Your task to perform on an android device: turn vacation reply on in the gmail app Image 0: 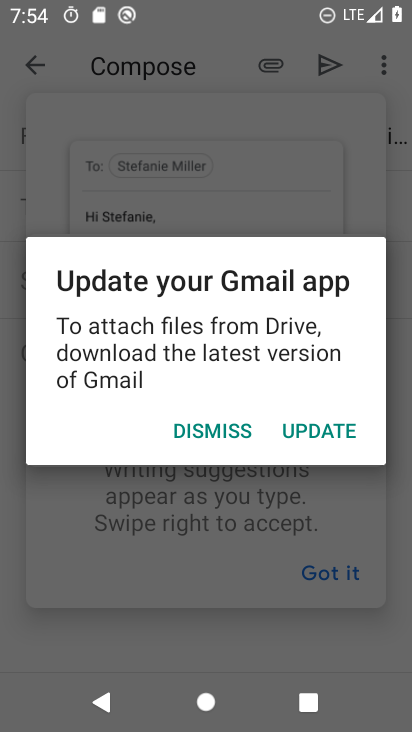
Step 0: press home button
Your task to perform on an android device: turn vacation reply on in the gmail app Image 1: 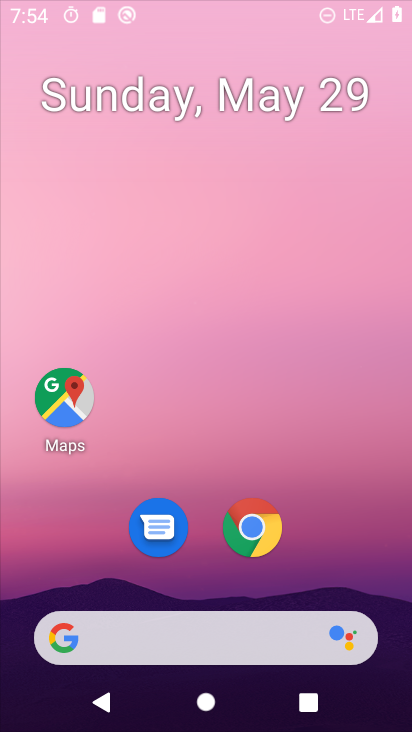
Step 1: drag from (355, 646) to (260, 30)
Your task to perform on an android device: turn vacation reply on in the gmail app Image 2: 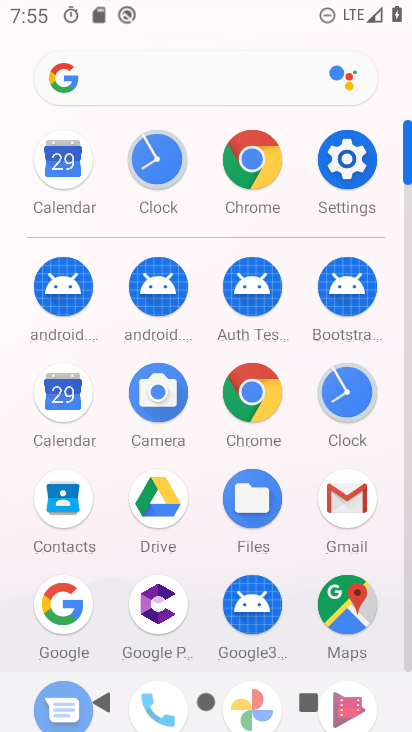
Step 2: click (343, 515)
Your task to perform on an android device: turn vacation reply on in the gmail app Image 3: 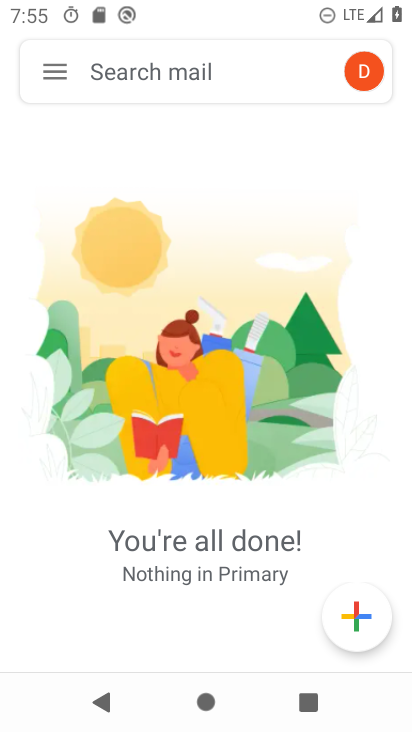
Step 3: click (64, 59)
Your task to perform on an android device: turn vacation reply on in the gmail app Image 4: 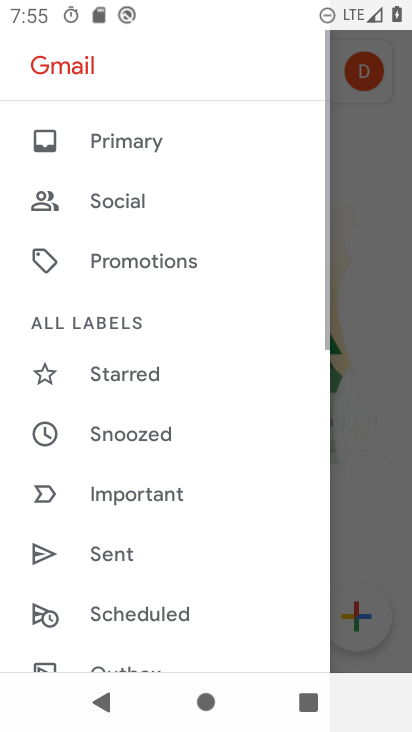
Step 4: drag from (107, 636) to (196, 112)
Your task to perform on an android device: turn vacation reply on in the gmail app Image 5: 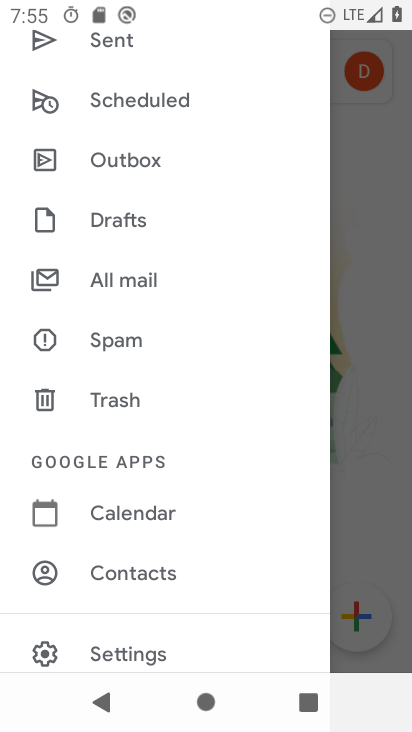
Step 5: click (136, 647)
Your task to perform on an android device: turn vacation reply on in the gmail app Image 6: 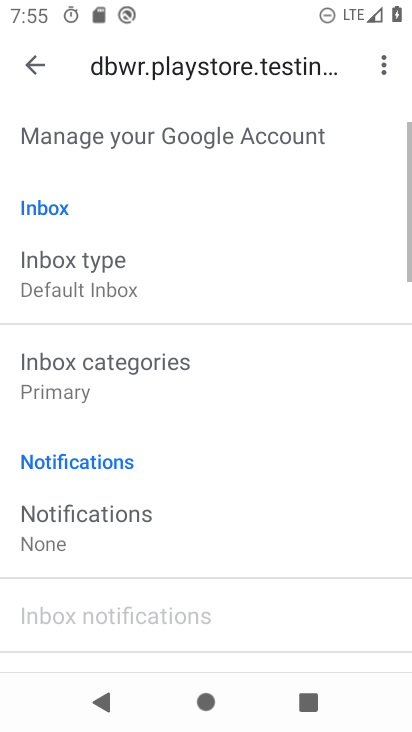
Step 6: drag from (144, 628) to (202, 104)
Your task to perform on an android device: turn vacation reply on in the gmail app Image 7: 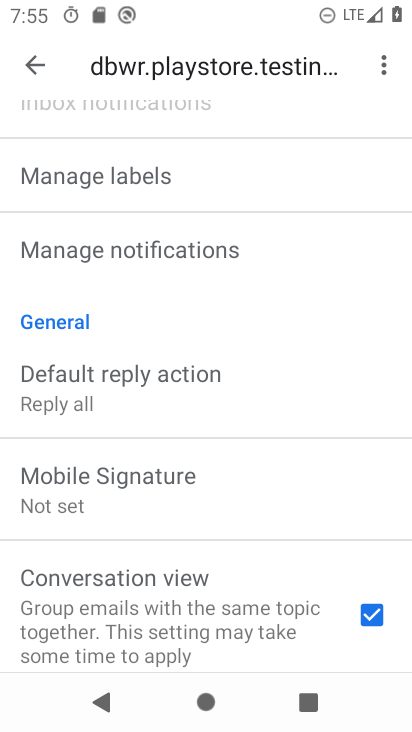
Step 7: drag from (171, 593) to (250, 115)
Your task to perform on an android device: turn vacation reply on in the gmail app Image 8: 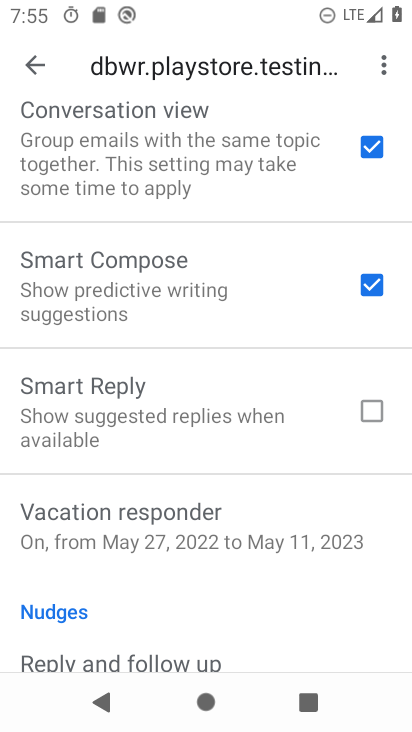
Step 8: click (186, 556)
Your task to perform on an android device: turn vacation reply on in the gmail app Image 9: 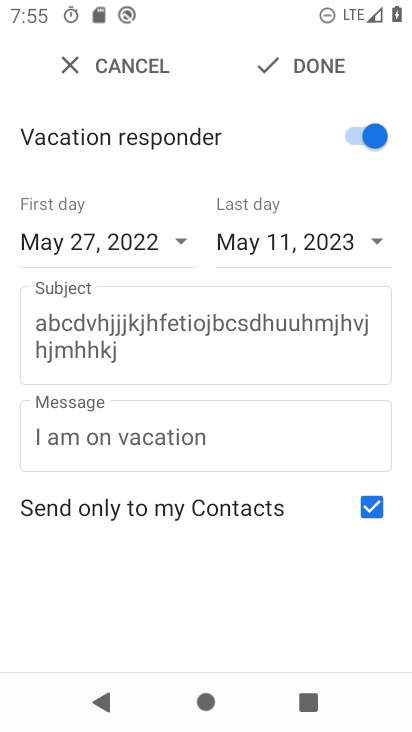
Step 9: task complete